Your task to perform on an android device: search for starred emails in the gmail app Image 0: 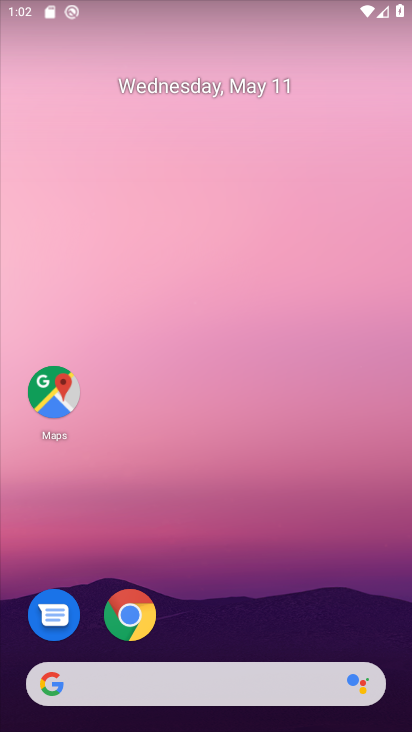
Step 0: drag from (337, 586) to (373, 120)
Your task to perform on an android device: search for starred emails in the gmail app Image 1: 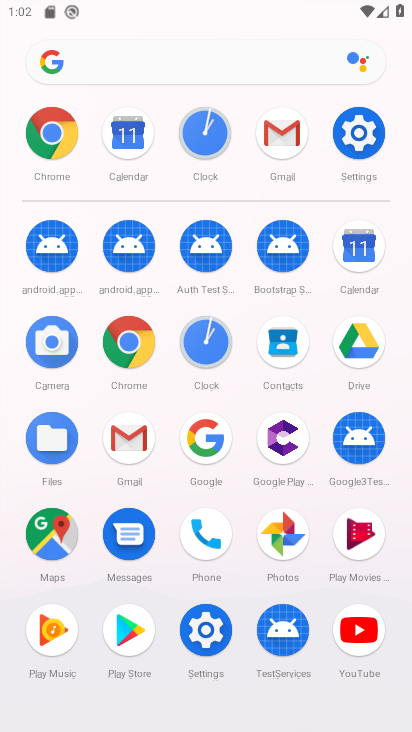
Step 1: click (123, 444)
Your task to perform on an android device: search for starred emails in the gmail app Image 2: 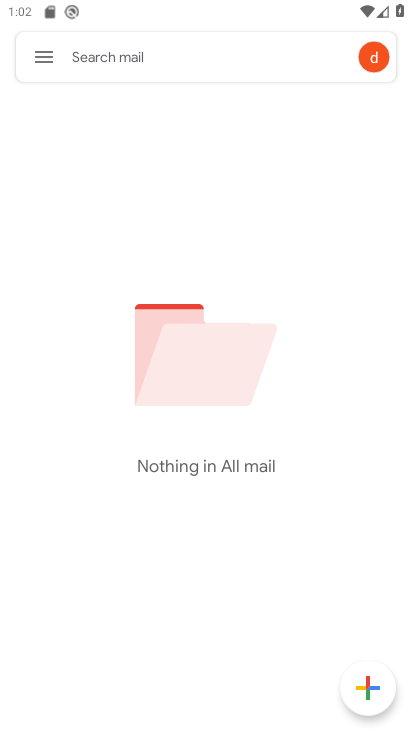
Step 2: click (46, 55)
Your task to perform on an android device: search for starred emails in the gmail app Image 3: 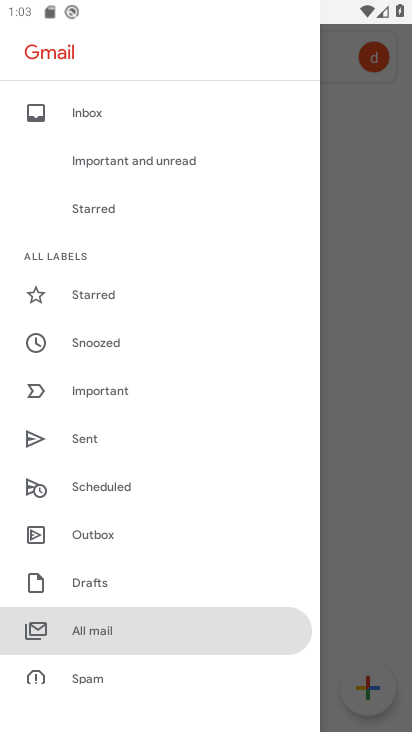
Step 3: click (140, 288)
Your task to perform on an android device: search for starred emails in the gmail app Image 4: 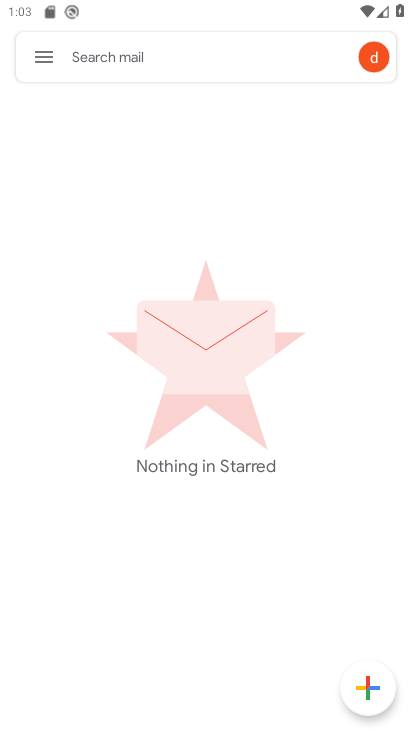
Step 4: task complete